Your task to perform on an android device: Search for the best selling coffee table on Crate & Barrel Image 0: 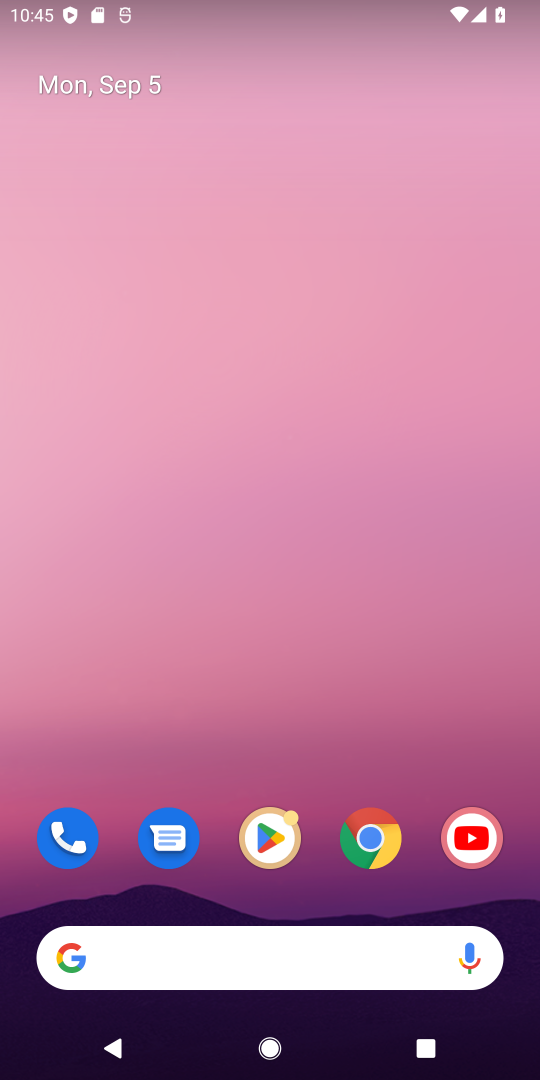
Step 0: click (273, 833)
Your task to perform on an android device: Search for the best selling coffee table on Crate & Barrel Image 1: 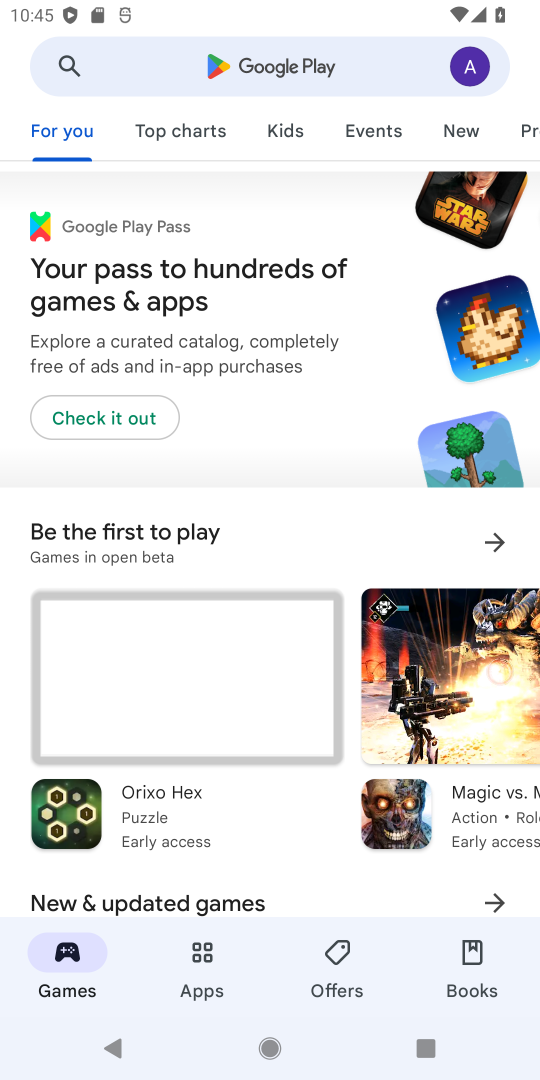
Step 1: click (266, 50)
Your task to perform on an android device: Search for the best selling coffee table on Crate & Barrel Image 2: 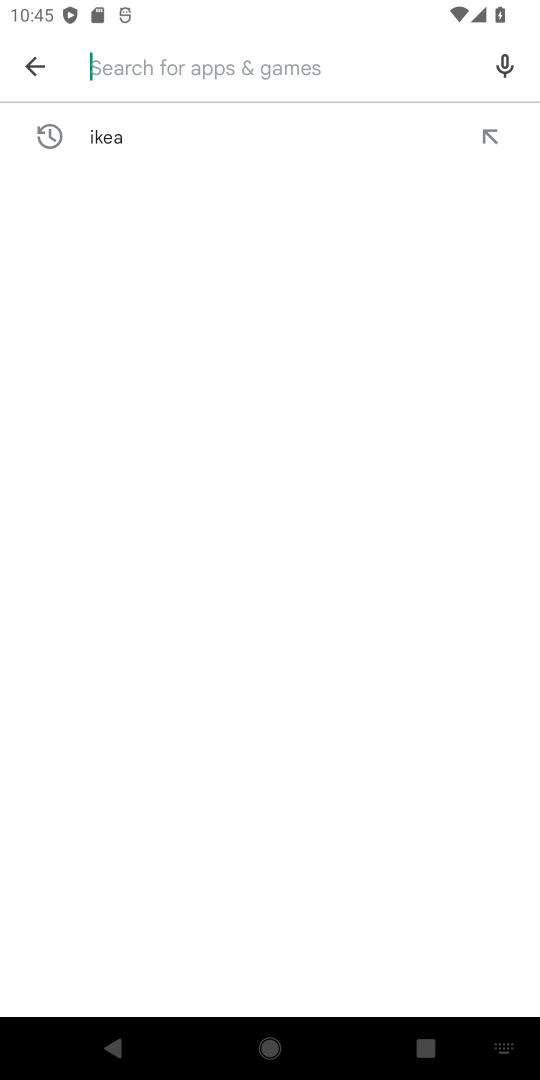
Step 2: press home button
Your task to perform on an android device: Search for the best selling coffee table on Crate & Barrel Image 3: 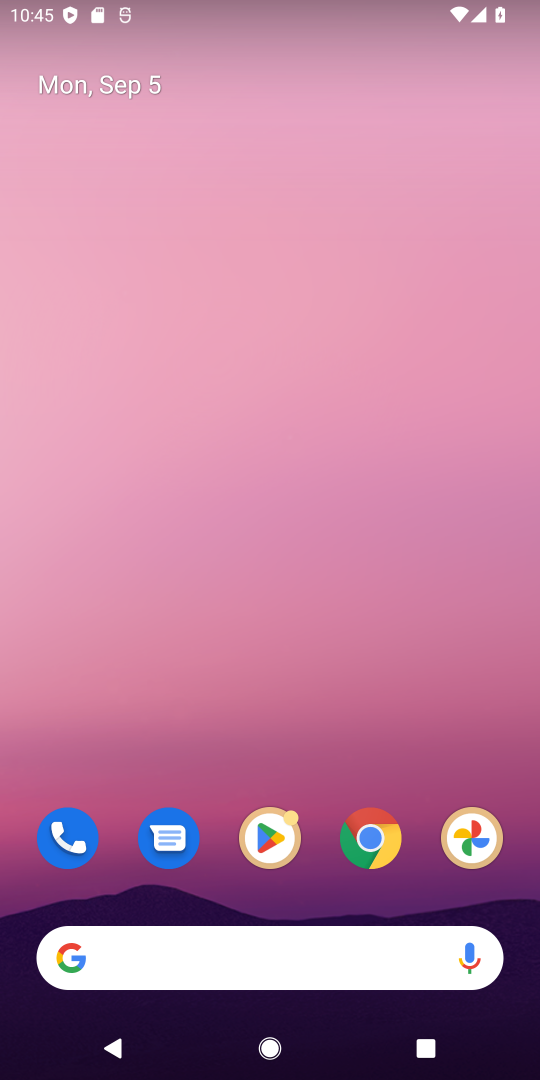
Step 3: click (338, 941)
Your task to perform on an android device: Search for the best selling coffee table on Crate & Barrel Image 4: 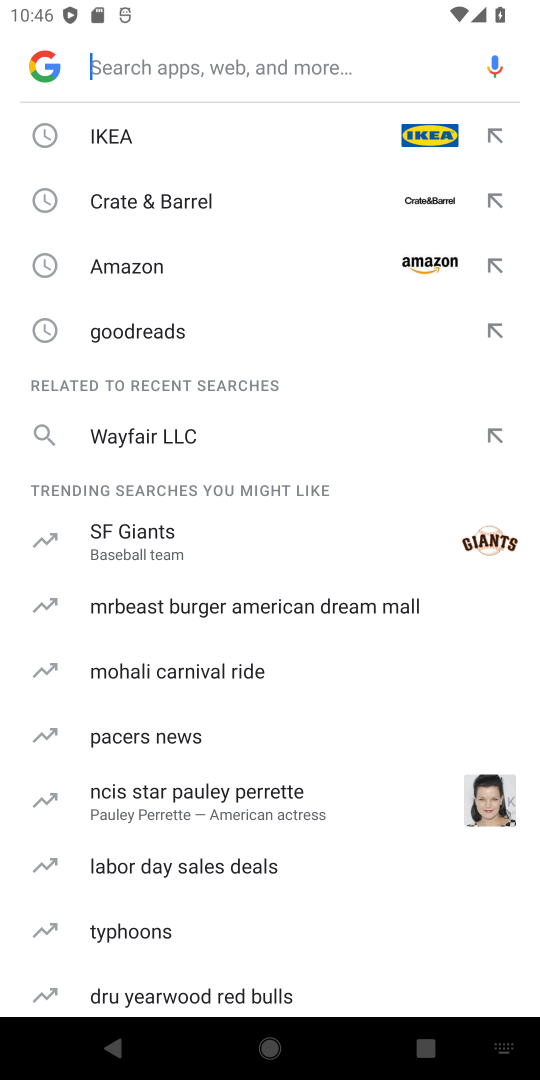
Step 4: type "Crate & Barrel"
Your task to perform on an android device: Search for the best selling coffee table on Crate & Barrel Image 5: 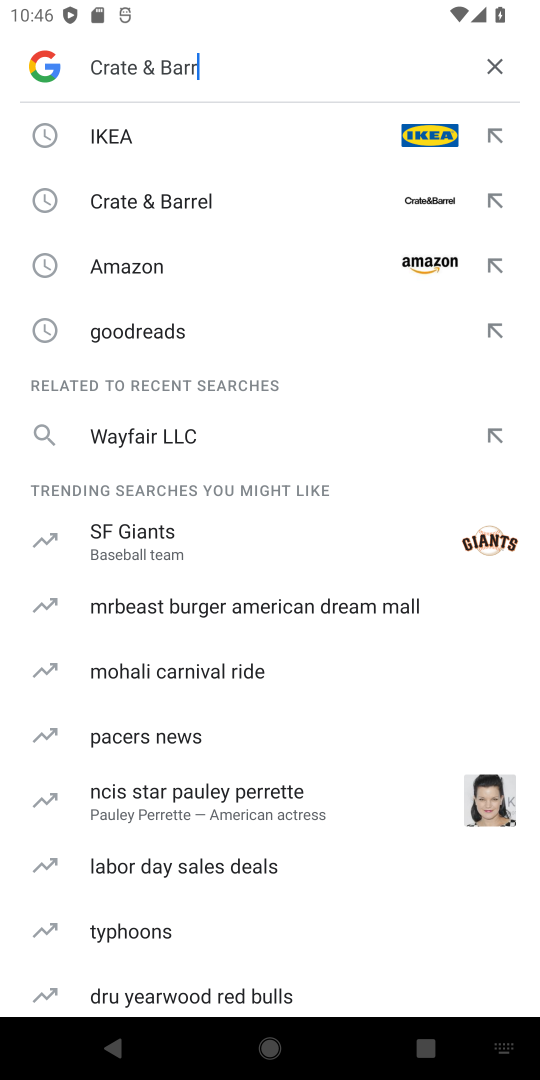
Step 5: type ""
Your task to perform on an android device: Search for the best selling coffee table on Crate & Barrel Image 6: 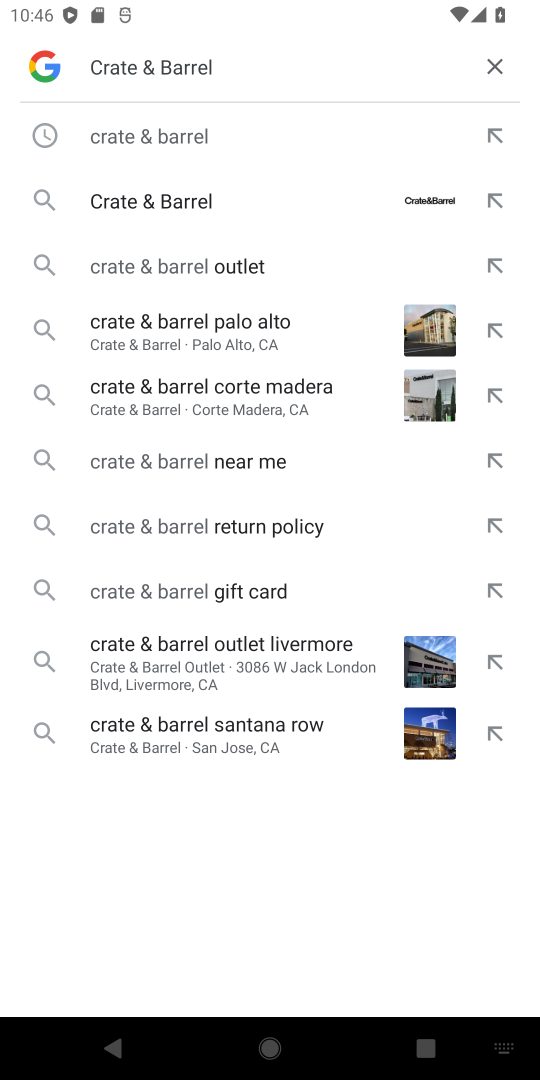
Step 6: click (237, 136)
Your task to perform on an android device: Search for the best selling coffee table on Crate & Barrel Image 7: 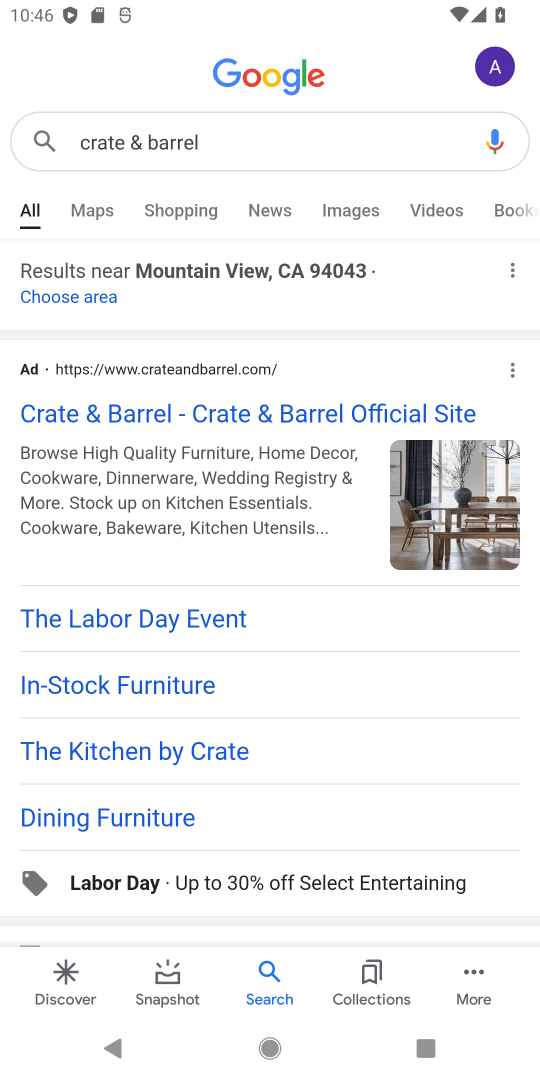
Step 7: drag from (231, 686) to (268, 297)
Your task to perform on an android device: Search for the best selling coffee table on Crate & Barrel Image 8: 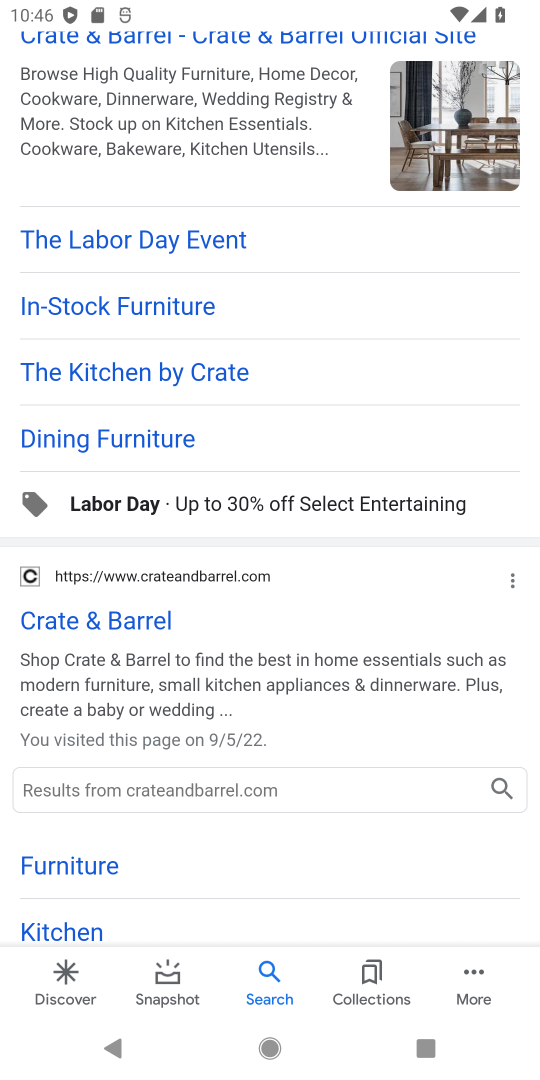
Step 8: click (79, 634)
Your task to perform on an android device: Search for the best selling coffee table on Crate & Barrel Image 9: 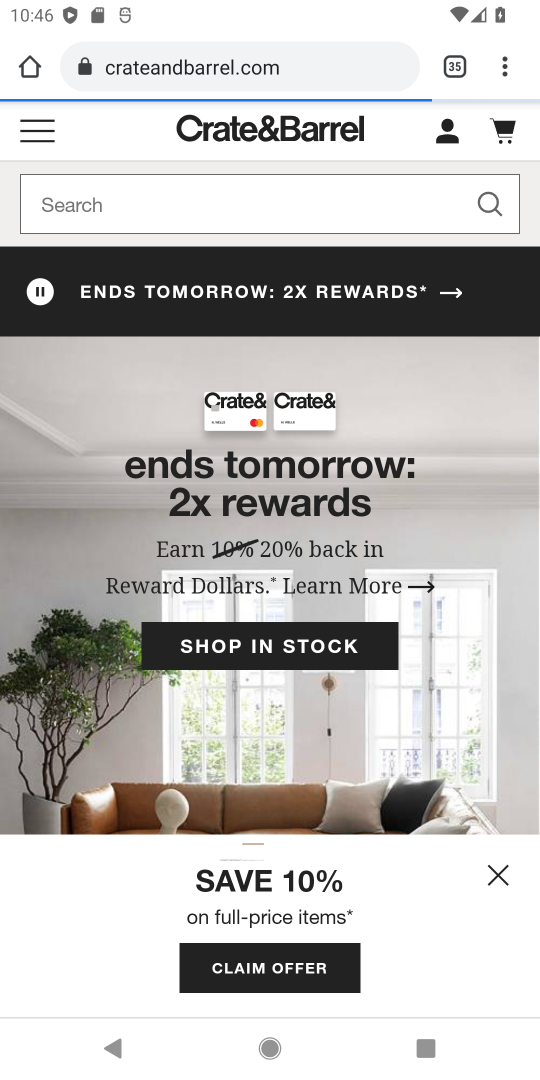
Step 9: click (171, 206)
Your task to perform on an android device: Search for the best selling coffee table on Crate & Barrel Image 10: 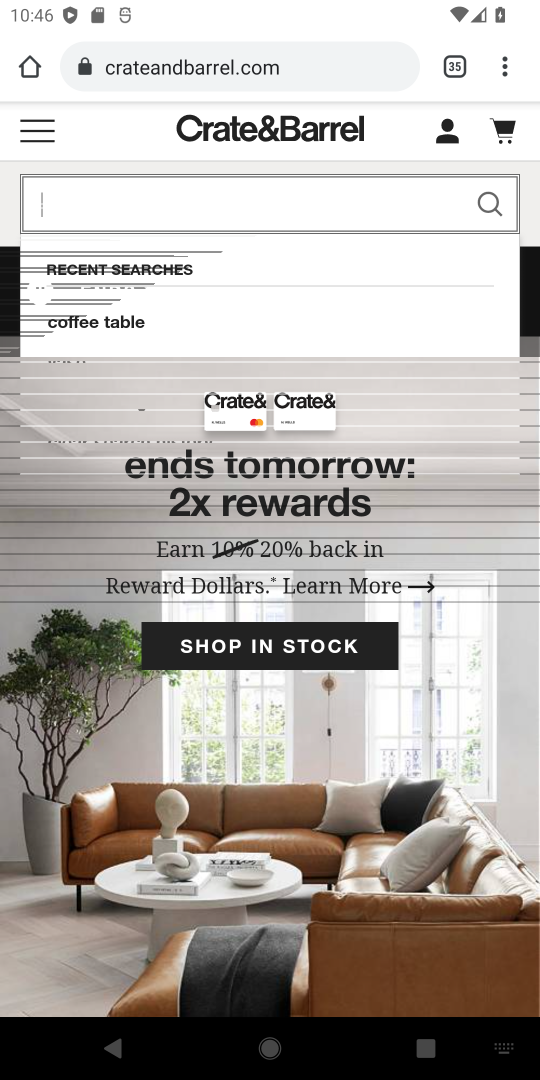
Step 10: click (120, 324)
Your task to perform on an android device: Search for the best selling coffee table on Crate & Barrel Image 11: 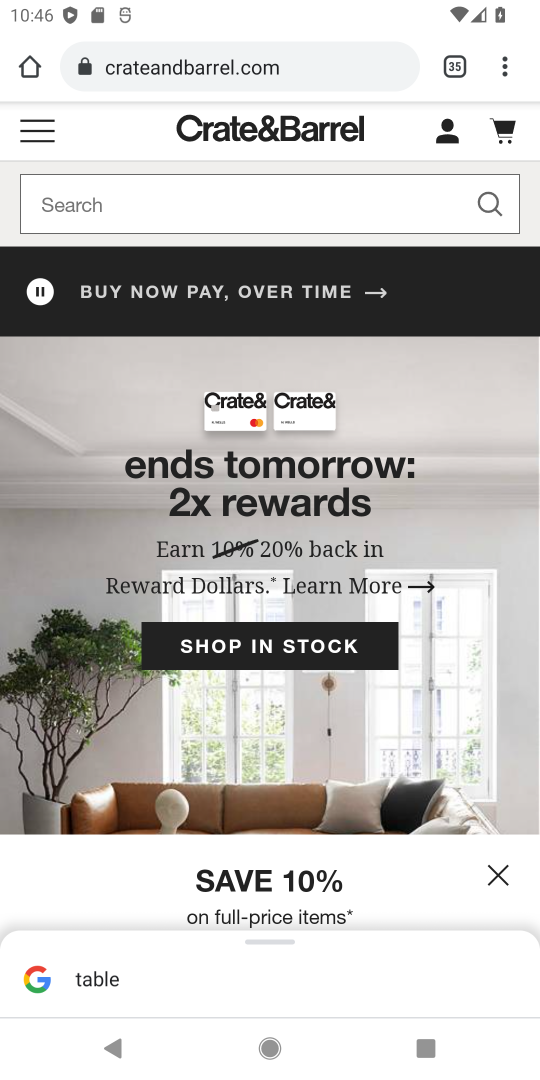
Step 11: drag from (388, 733) to (378, 194)
Your task to perform on an android device: Search for the best selling coffee table on Crate & Barrel Image 12: 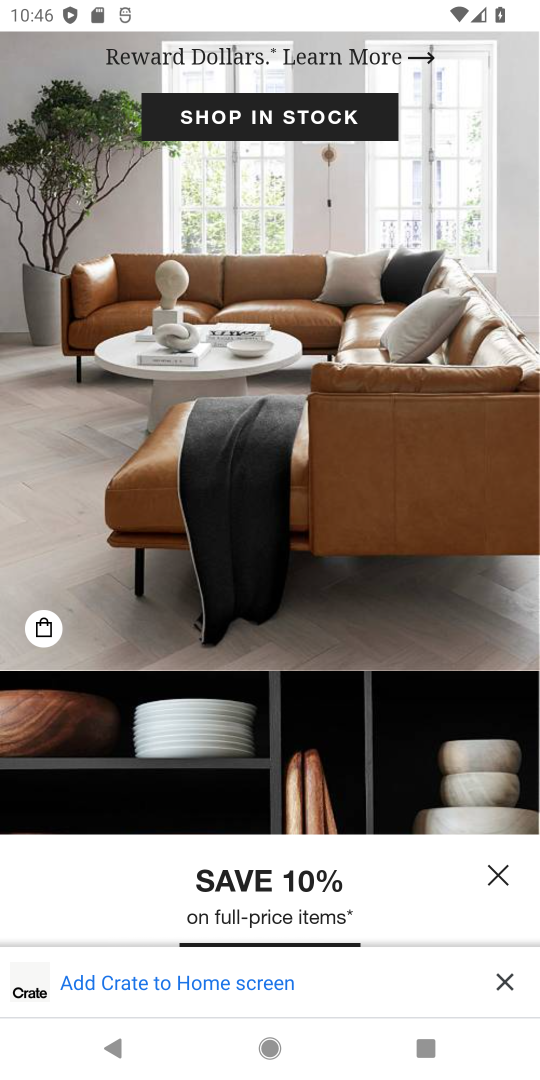
Step 12: click (314, 182)
Your task to perform on an android device: Search for the best selling coffee table on Crate & Barrel Image 13: 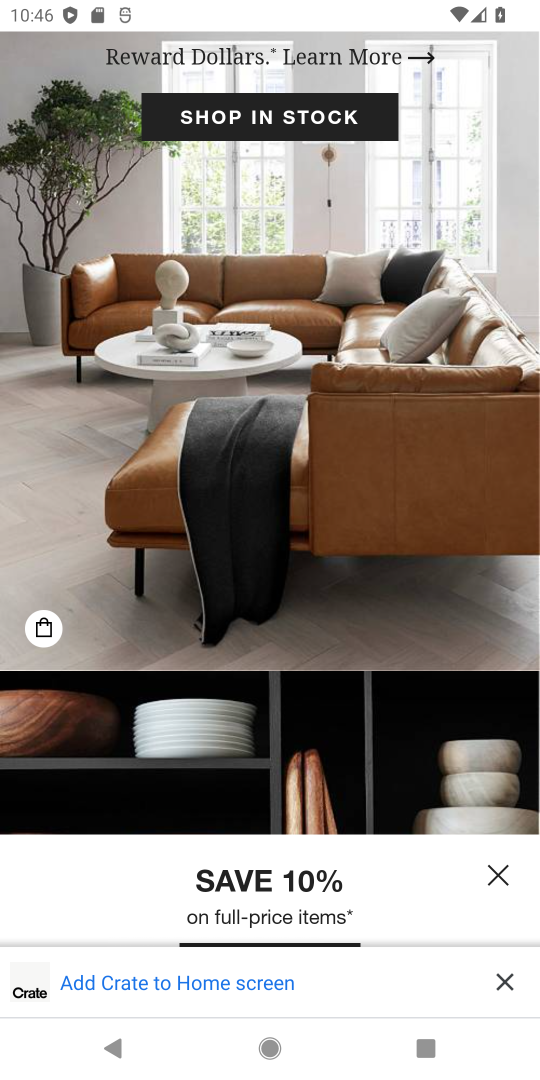
Step 13: drag from (336, 729) to (288, 290)
Your task to perform on an android device: Search for the best selling coffee table on Crate & Barrel Image 14: 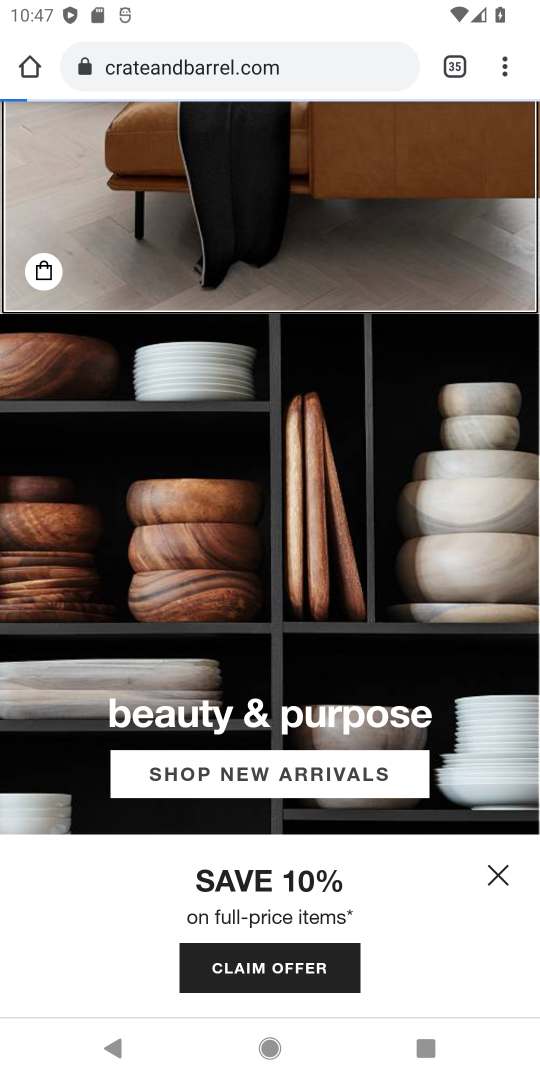
Step 14: drag from (373, 863) to (346, 386)
Your task to perform on an android device: Search for the best selling coffee table on Crate & Barrel Image 15: 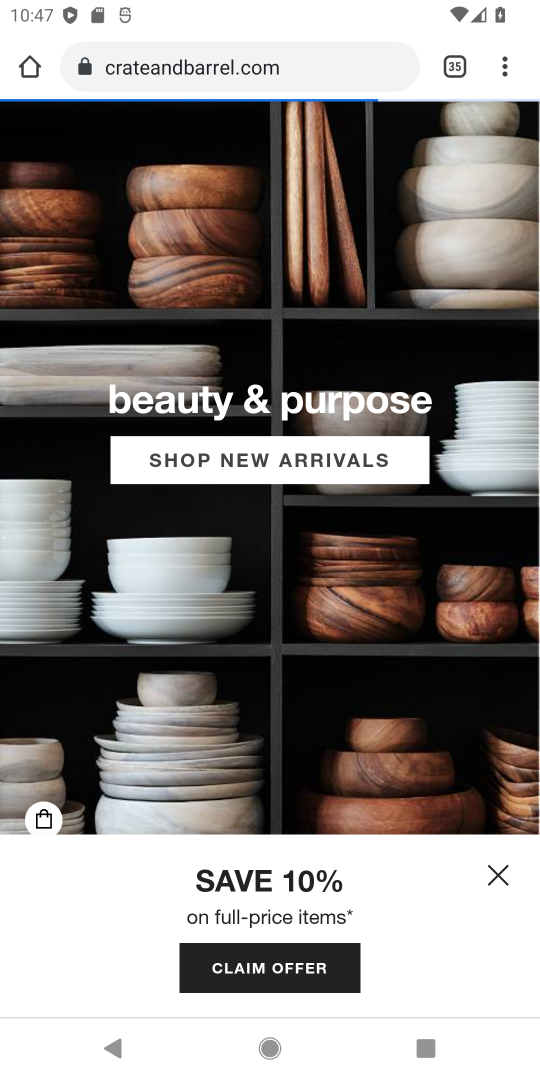
Step 15: click (386, 371)
Your task to perform on an android device: Search for the best selling coffee table on Crate & Barrel Image 16: 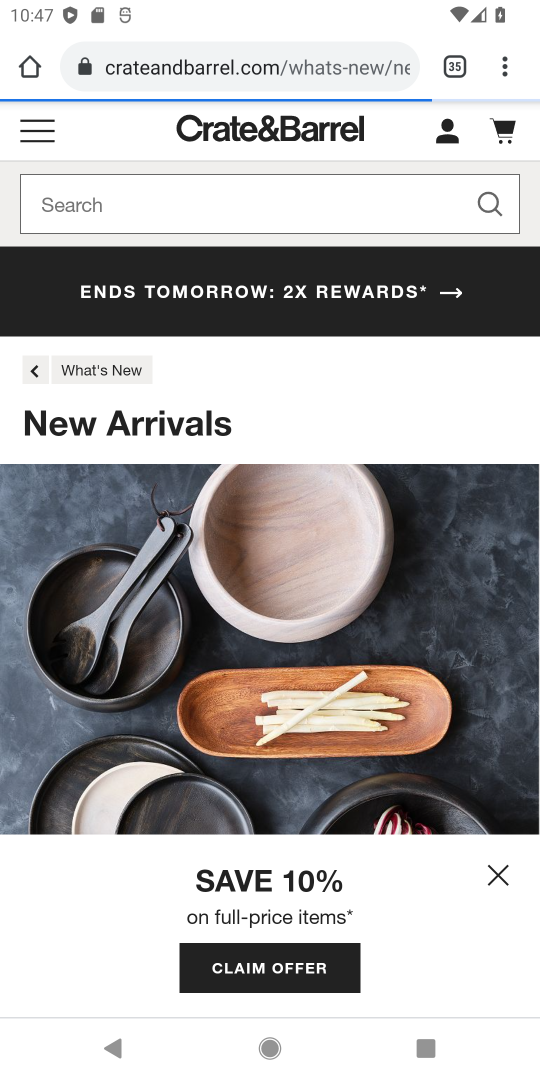
Step 16: task complete